Your task to perform on an android device: Go to Wikipedia Image 0: 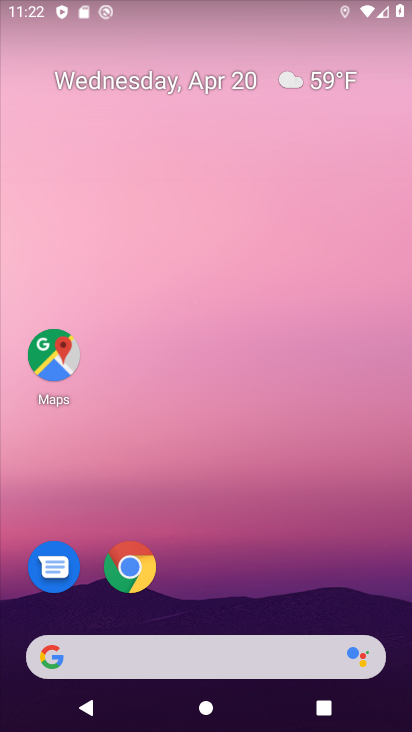
Step 0: click (111, 555)
Your task to perform on an android device: Go to Wikipedia Image 1: 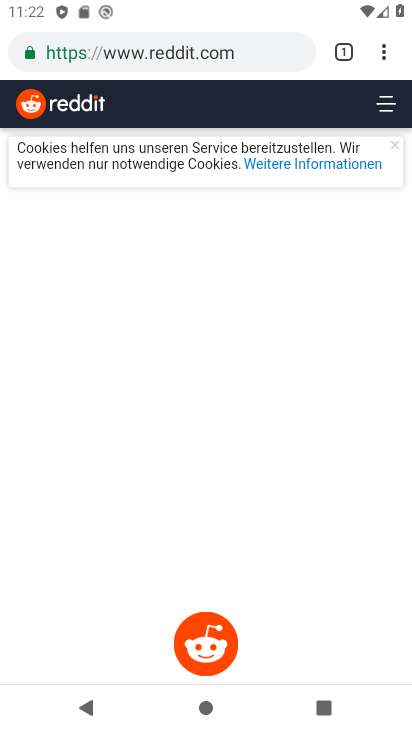
Step 1: click (215, 48)
Your task to perform on an android device: Go to Wikipedia Image 2: 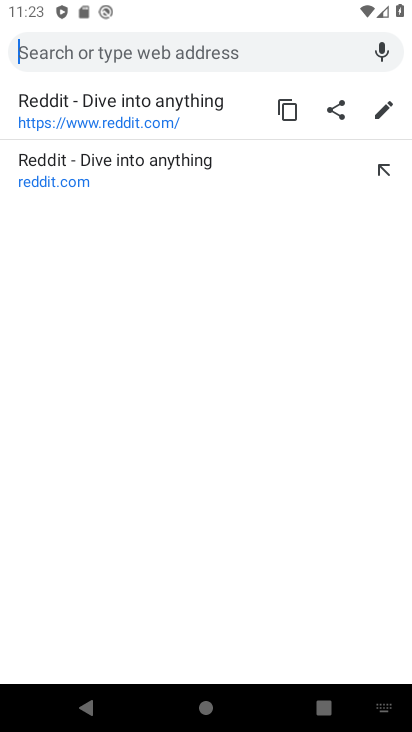
Step 2: type "wikipedia"
Your task to perform on an android device: Go to Wikipedia Image 3: 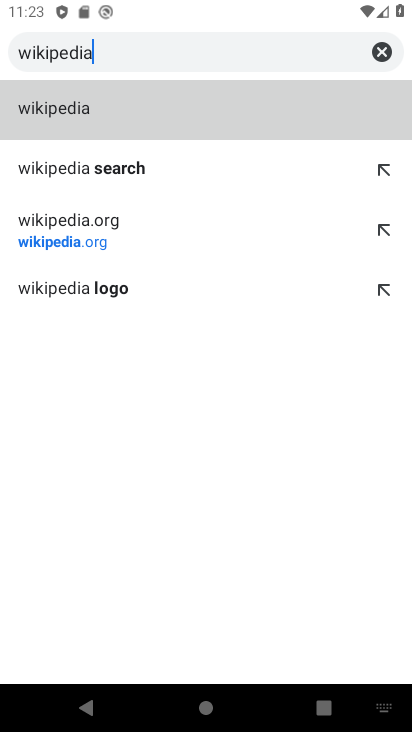
Step 3: click (85, 99)
Your task to perform on an android device: Go to Wikipedia Image 4: 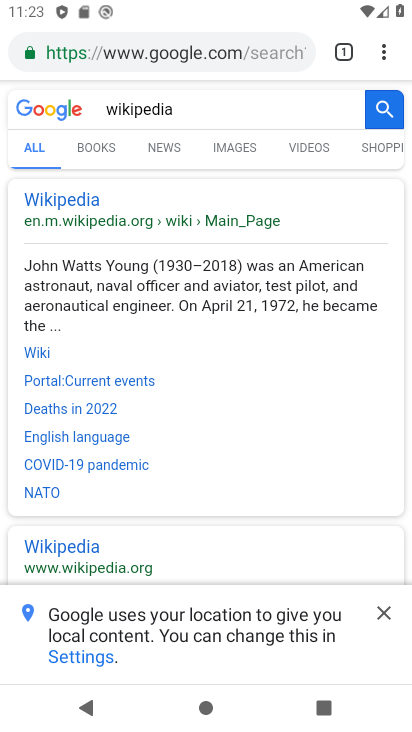
Step 4: click (55, 201)
Your task to perform on an android device: Go to Wikipedia Image 5: 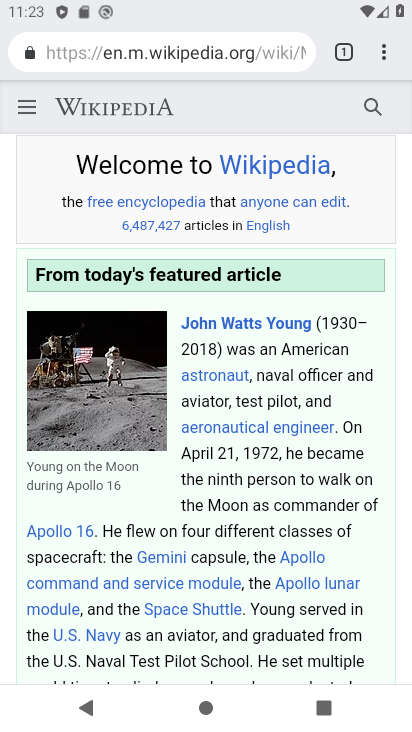
Step 5: task complete